Your task to perform on an android device: Open Reddit.com Image 0: 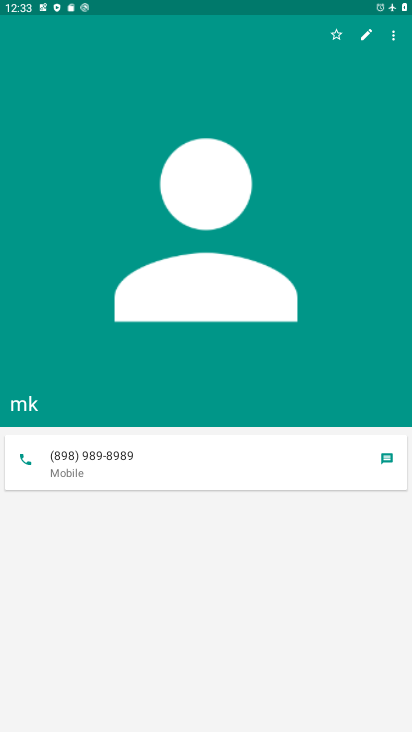
Step 0: press home button
Your task to perform on an android device: Open Reddit.com Image 1: 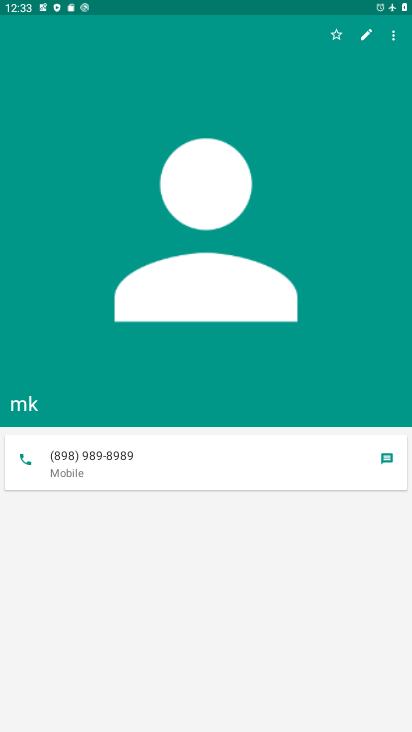
Step 1: press home button
Your task to perform on an android device: Open Reddit.com Image 2: 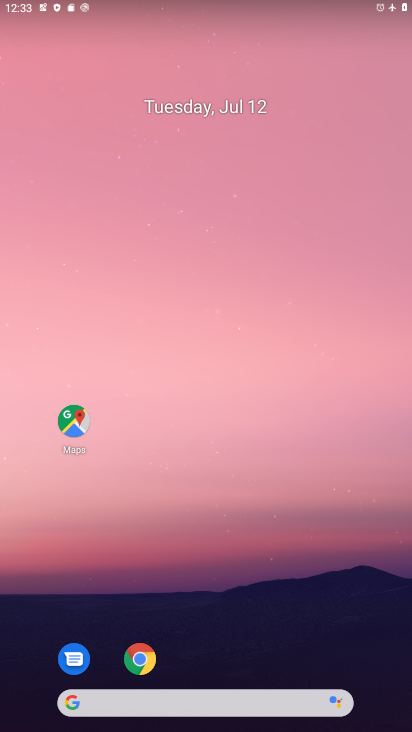
Step 2: drag from (211, 653) to (285, 50)
Your task to perform on an android device: Open Reddit.com Image 3: 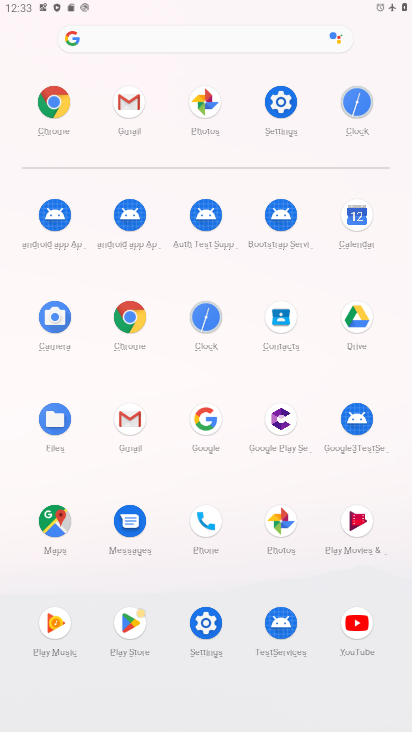
Step 3: click (163, 31)
Your task to perform on an android device: Open Reddit.com Image 4: 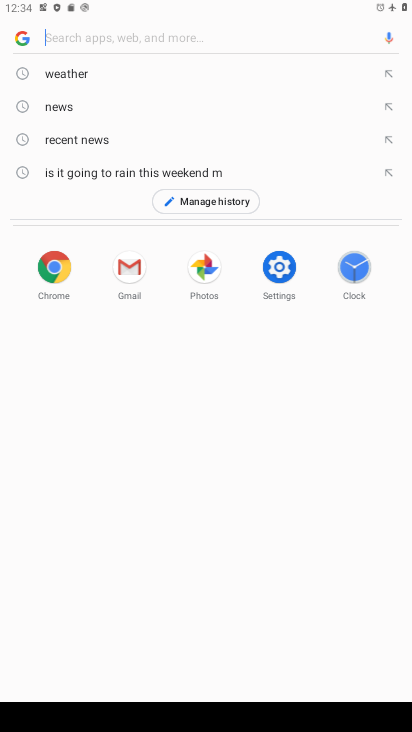
Step 4: type " Reddit.com"
Your task to perform on an android device: Open Reddit.com Image 5: 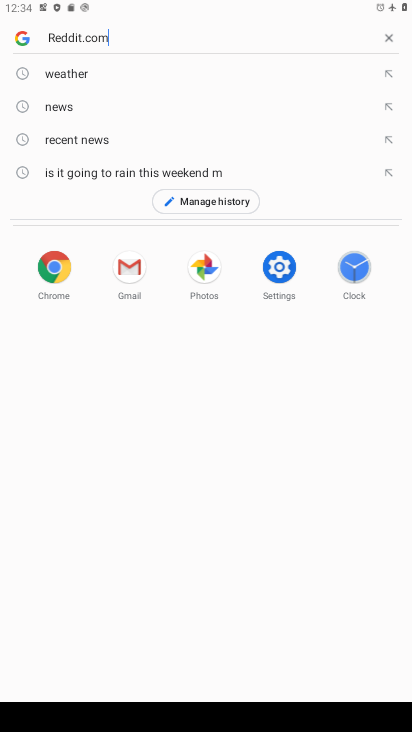
Step 5: type ""
Your task to perform on an android device: Open Reddit.com Image 6: 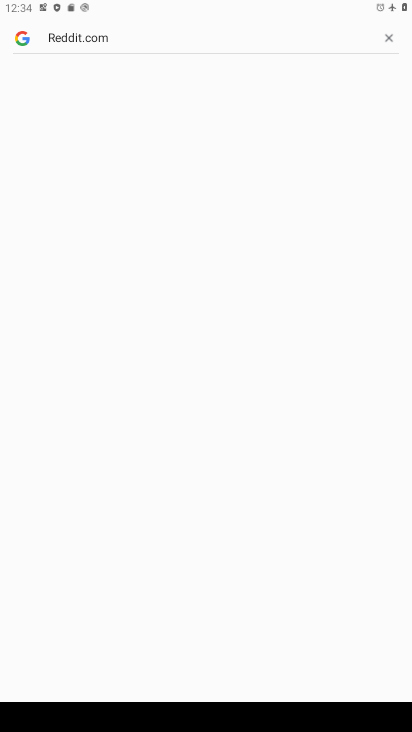
Step 6: click (100, 77)
Your task to perform on an android device: Open Reddit.com Image 7: 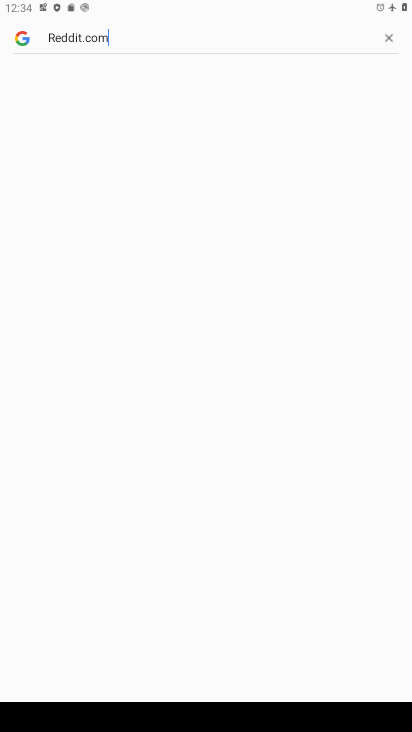
Step 7: task complete